Your task to perform on an android device: Open display settings Image 0: 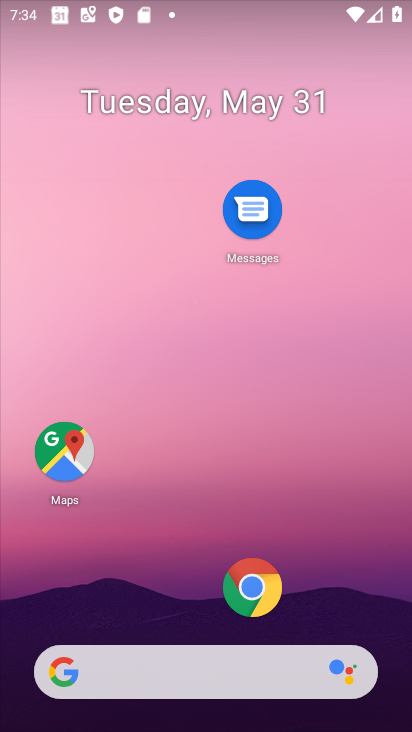
Step 0: drag from (174, 623) to (150, 229)
Your task to perform on an android device: Open display settings Image 1: 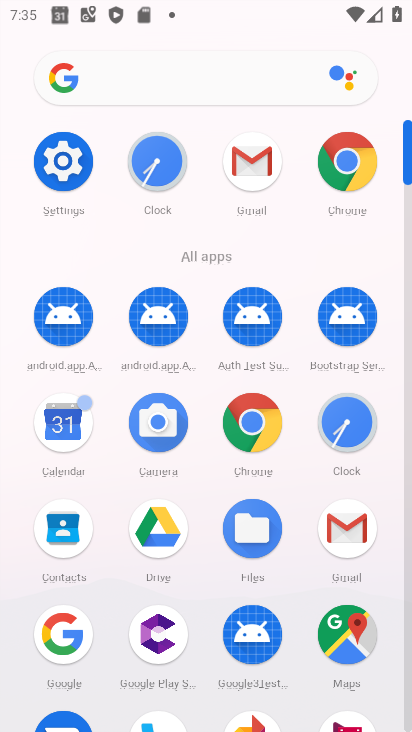
Step 1: click (68, 177)
Your task to perform on an android device: Open display settings Image 2: 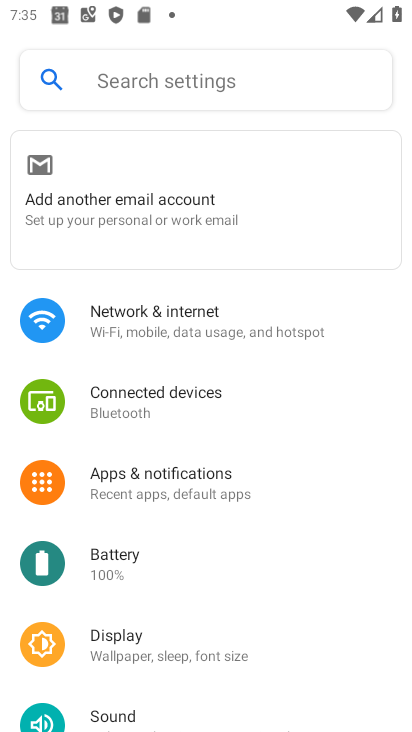
Step 2: click (143, 651)
Your task to perform on an android device: Open display settings Image 3: 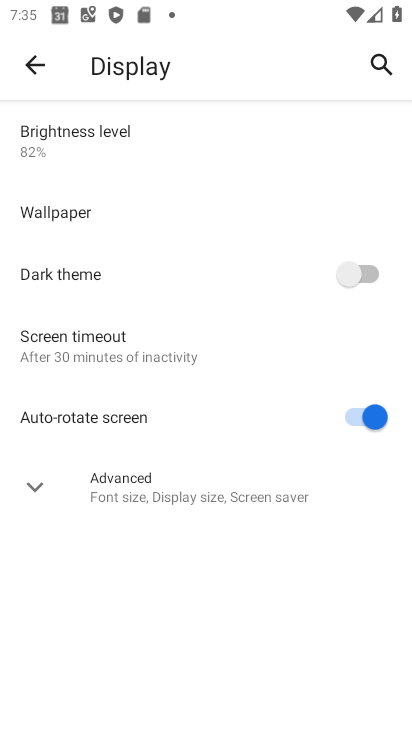
Step 3: task complete